Your task to perform on an android device: turn vacation reply on in the gmail app Image 0: 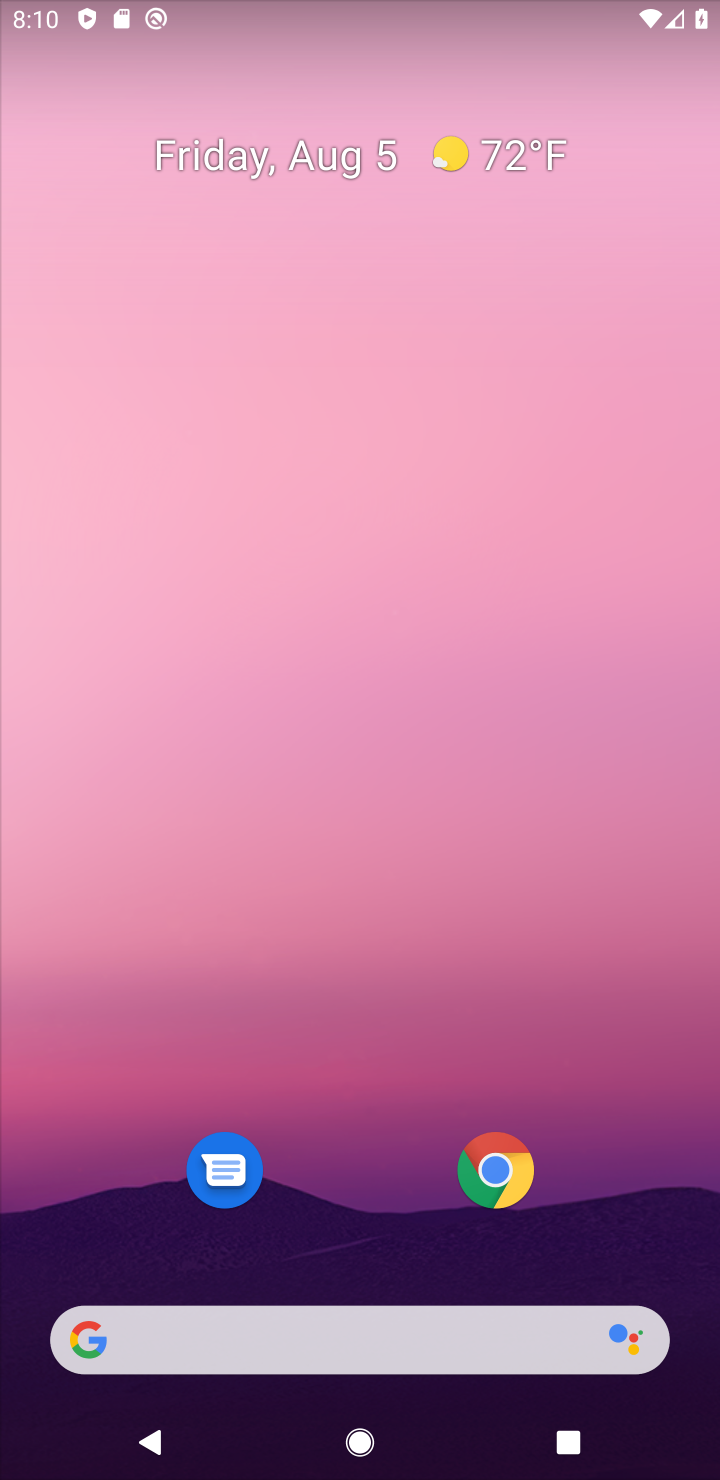
Step 0: drag from (667, 1243) to (489, 321)
Your task to perform on an android device: turn vacation reply on in the gmail app Image 1: 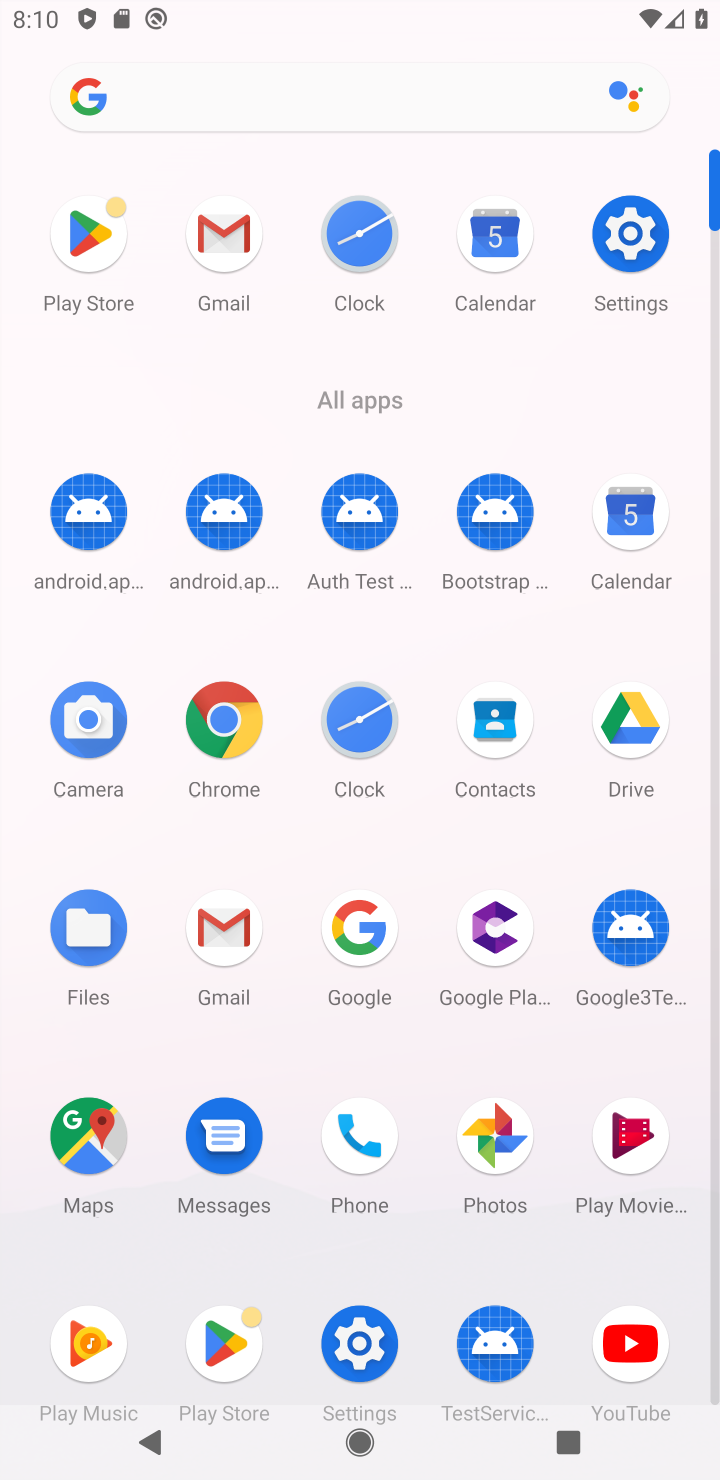
Step 1: click (224, 933)
Your task to perform on an android device: turn vacation reply on in the gmail app Image 2: 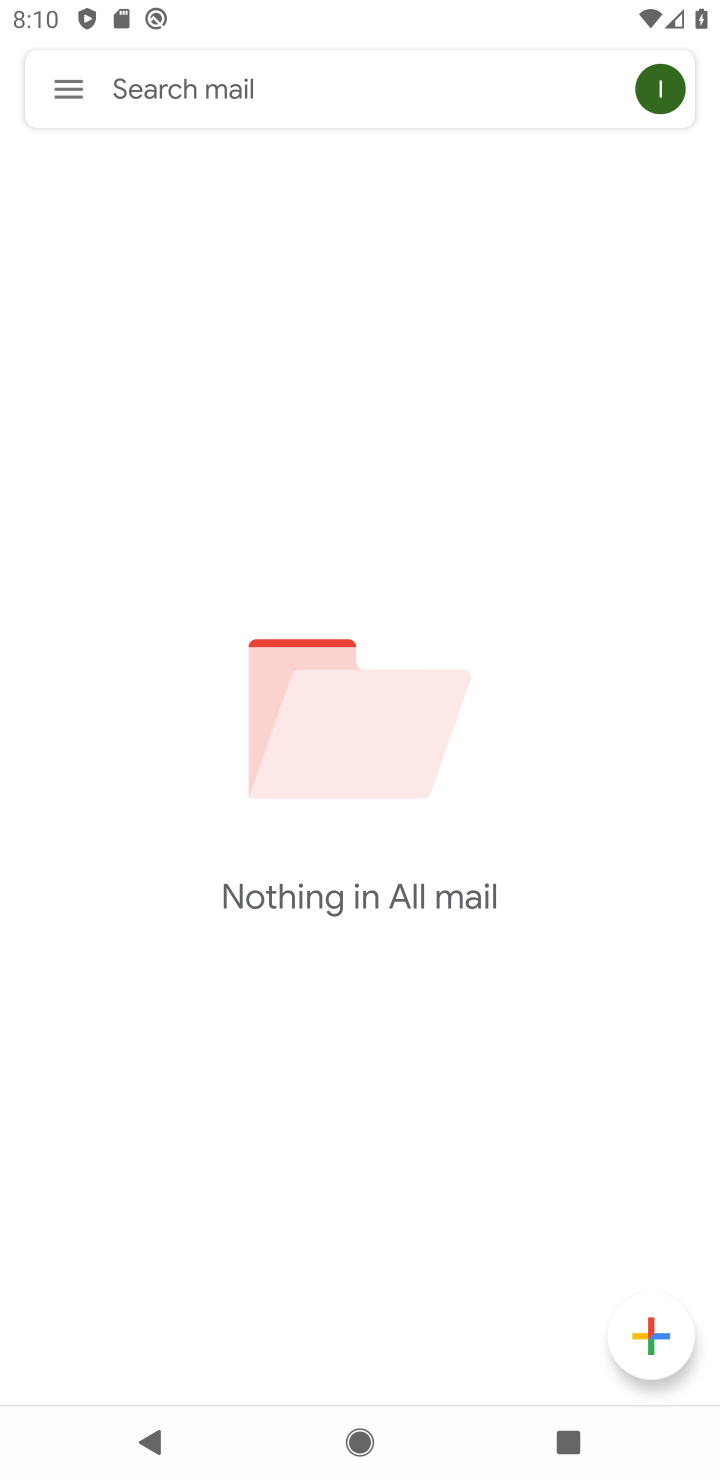
Step 2: click (59, 94)
Your task to perform on an android device: turn vacation reply on in the gmail app Image 3: 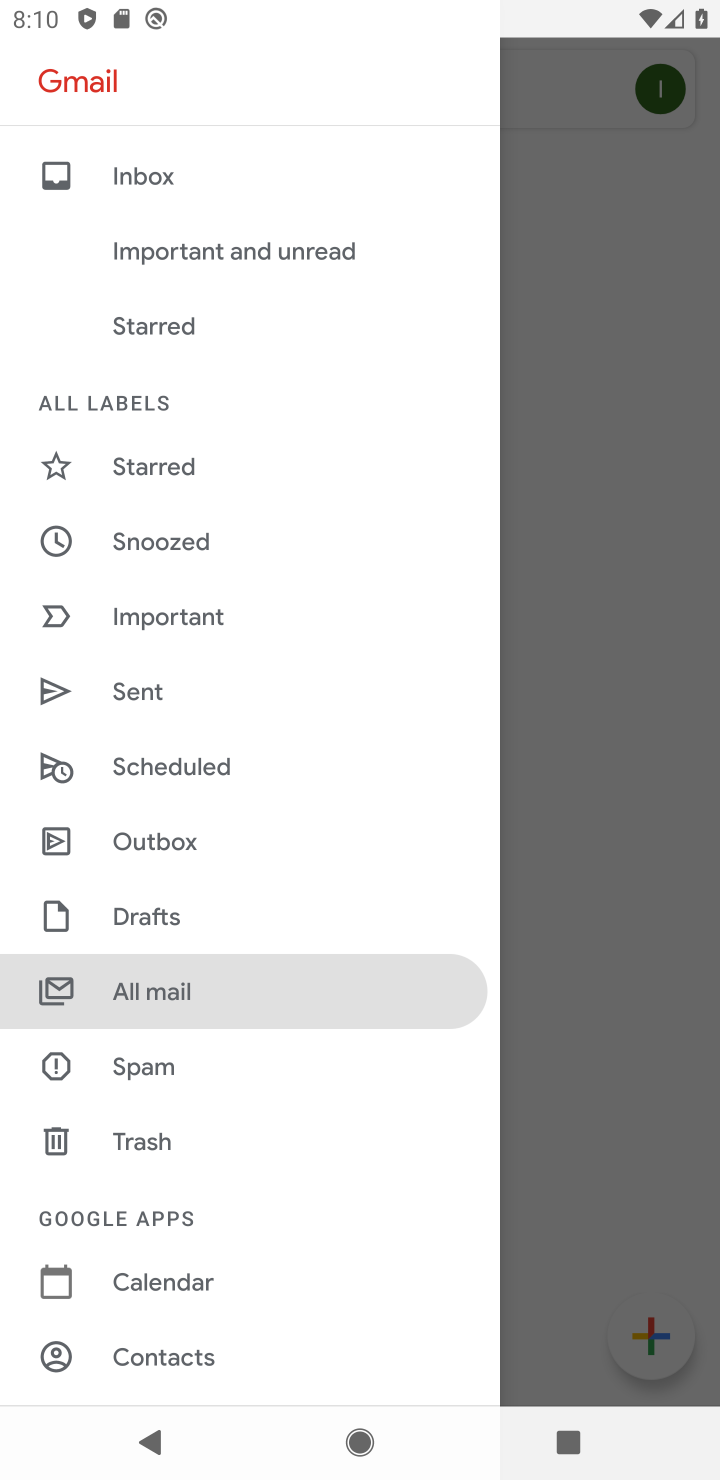
Step 3: drag from (290, 1264) to (306, 463)
Your task to perform on an android device: turn vacation reply on in the gmail app Image 4: 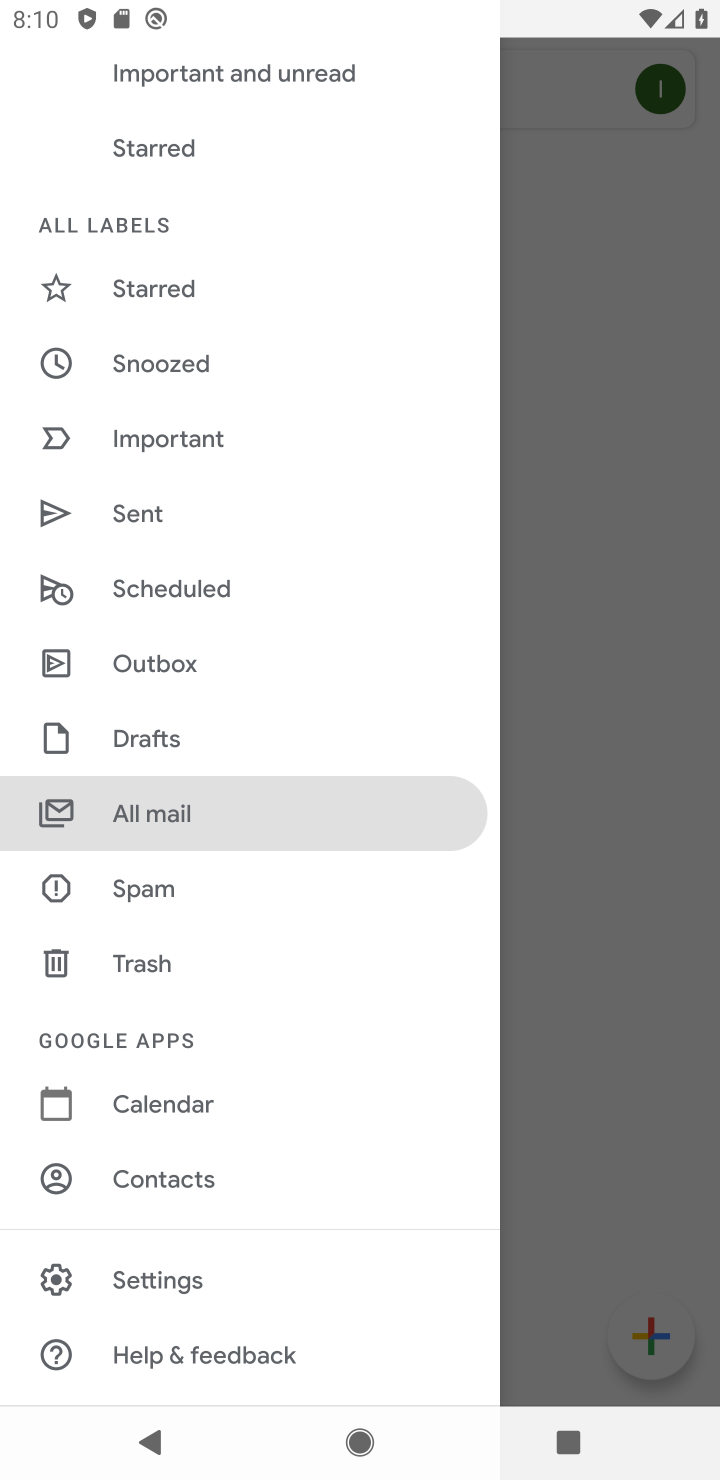
Step 4: click (149, 1291)
Your task to perform on an android device: turn vacation reply on in the gmail app Image 5: 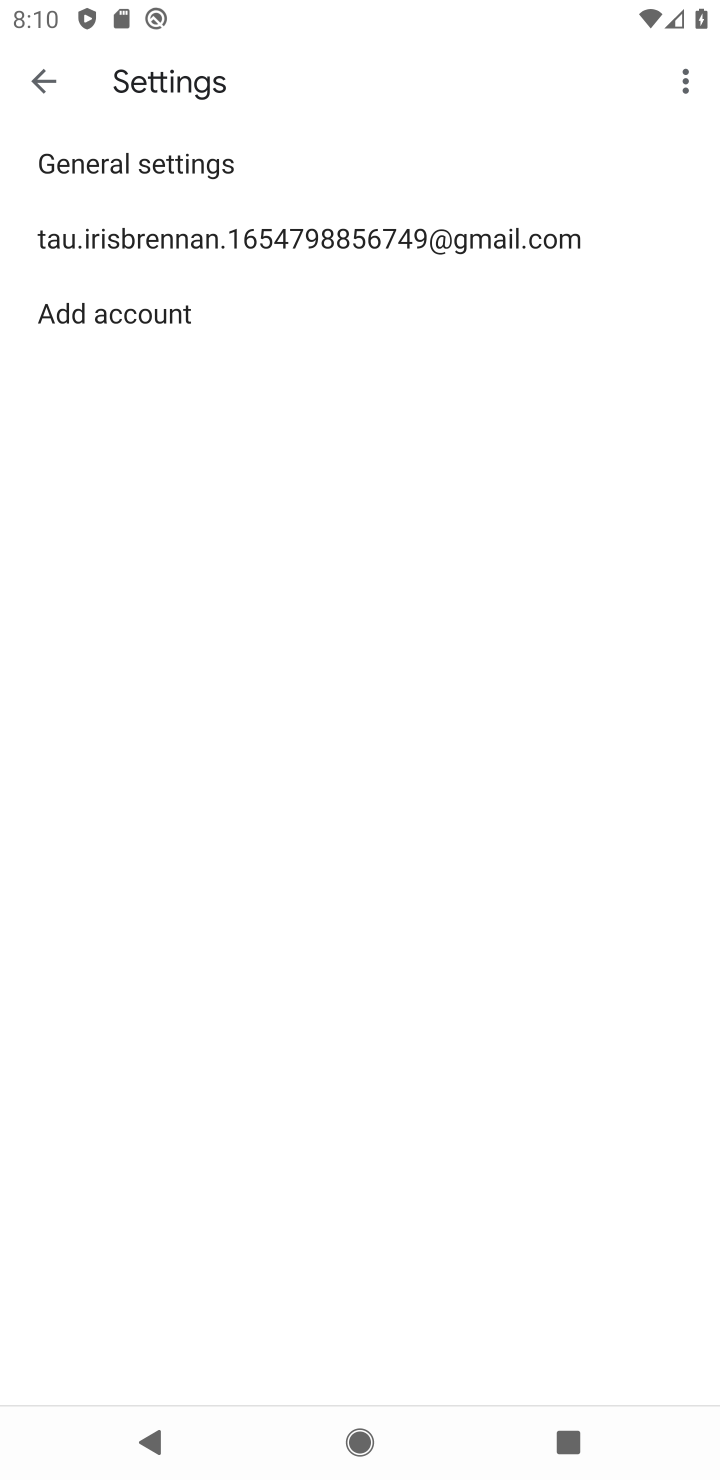
Step 5: click (310, 238)
Your task to perform on an android device: turn vacation reply on in the gmail app Image 6: 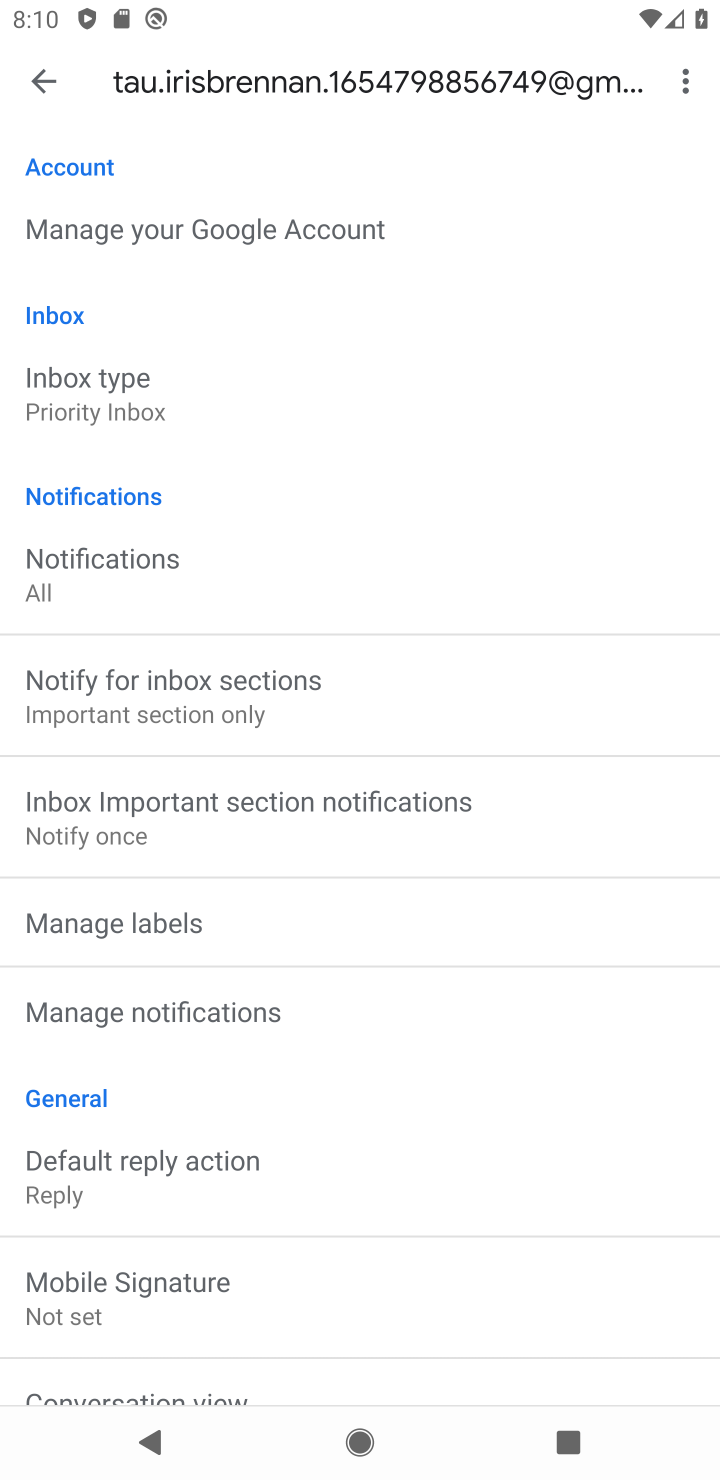
Step 6: drag from (429, 1223) to (409, 546)
Your task to perform on an android device: turn vacation reply on in the gmail app Image 7: 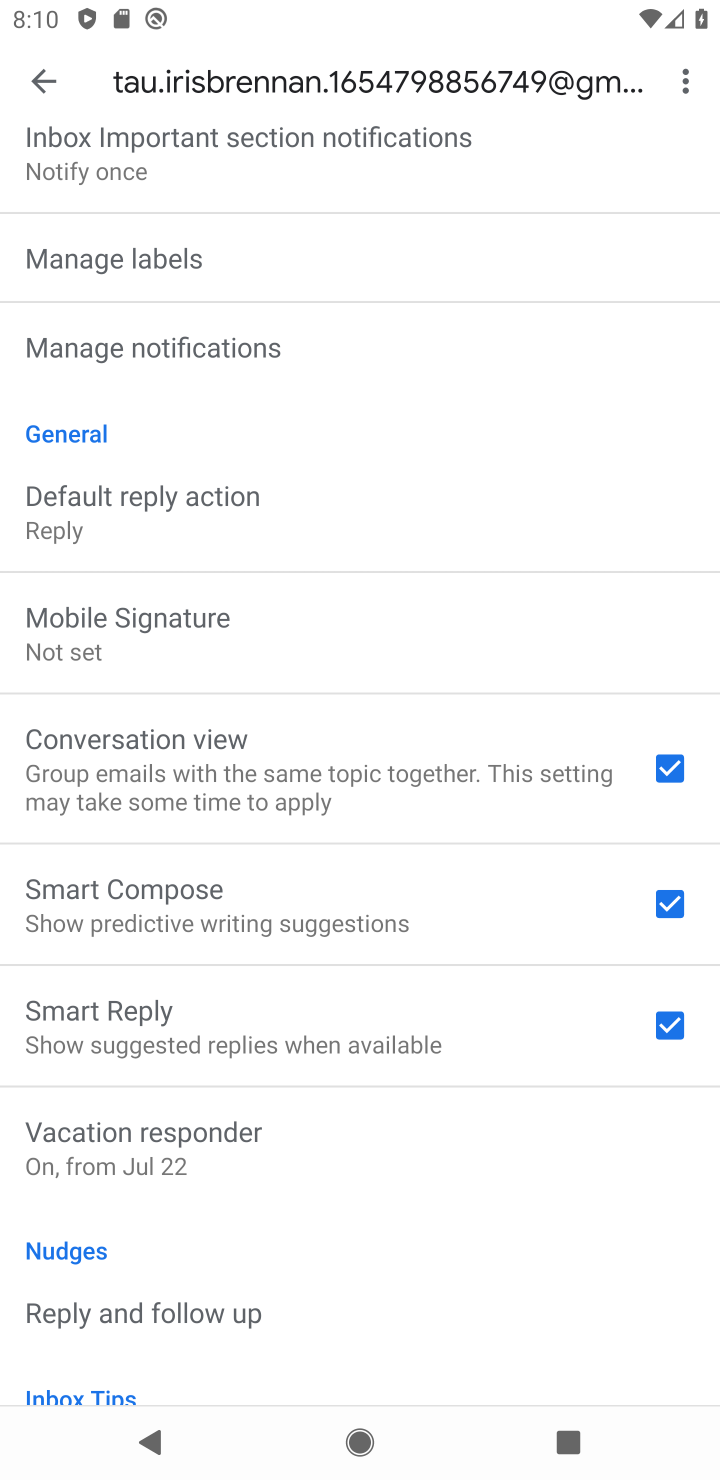
Step 7: click (201, 1133)
Your task to perform on an android device: turn vacation reply on in the gmail app Image 8: 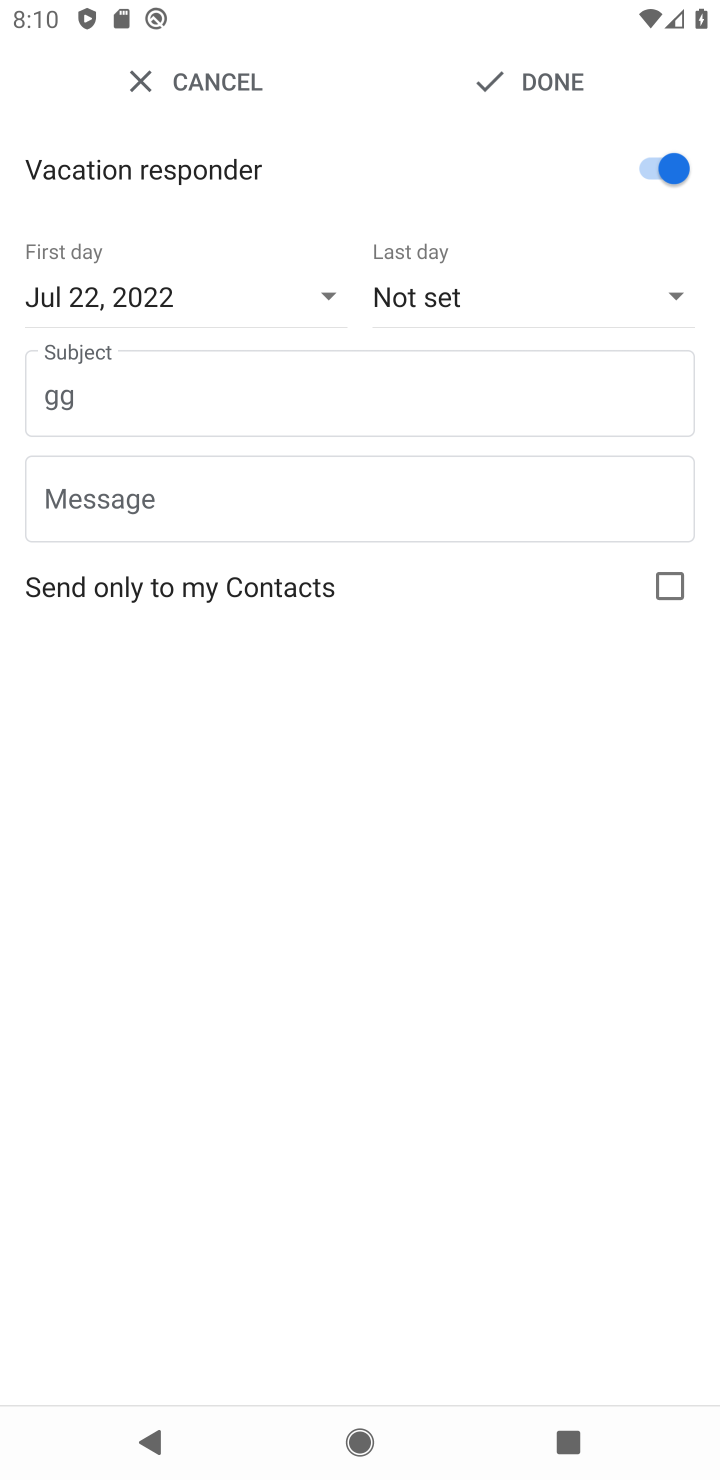
Step 8: click (525, 82)
Your task to perform on an android device: turn vacation reply on in the gmail app Image 9: 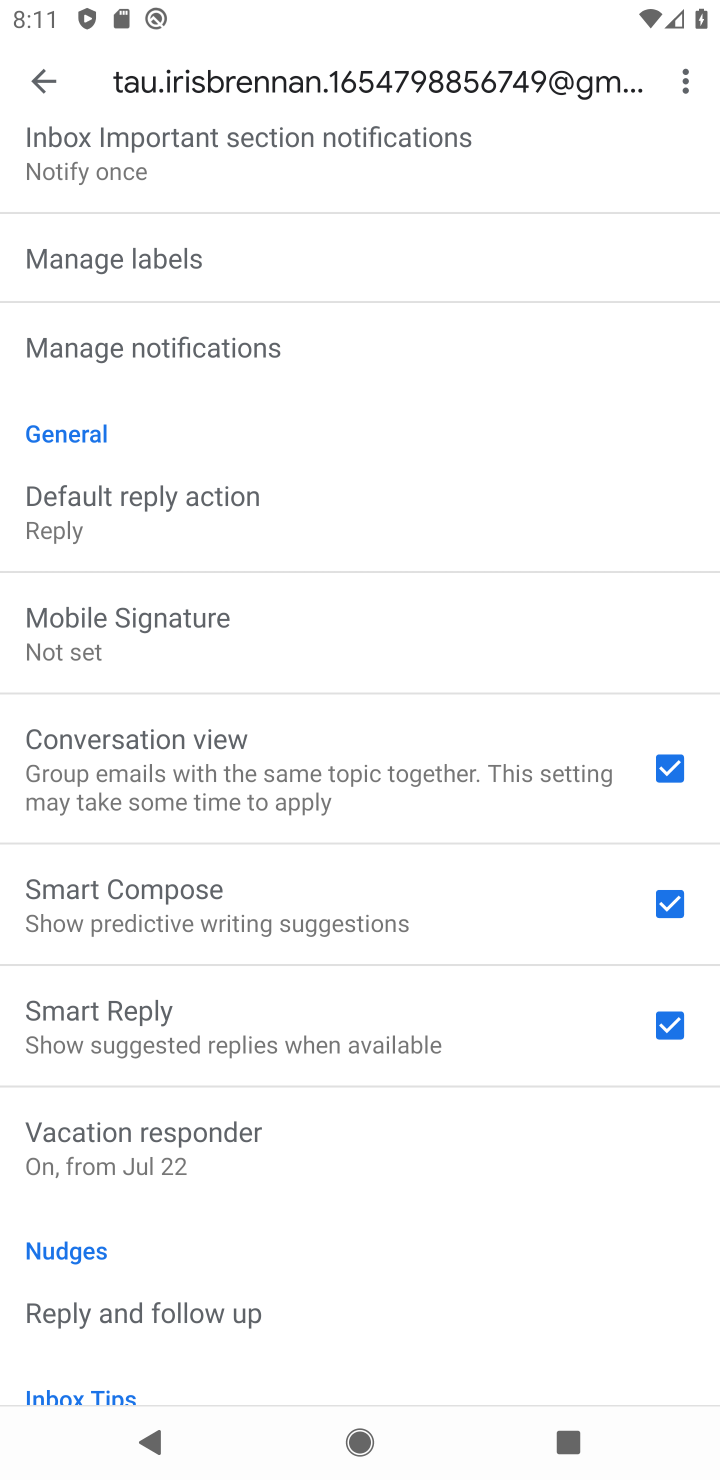
Step 9: task complete